Your task to perform on an android device: turn off priority inbox in the gmail app Image 0: 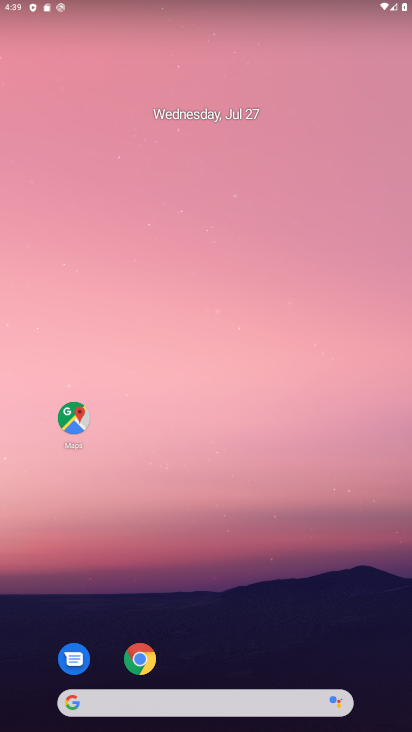
Step 0: drag from (239, 646) to (268, 129)
Your task to perform on an android device: turn off priority inbox in the gmail app Image 1: 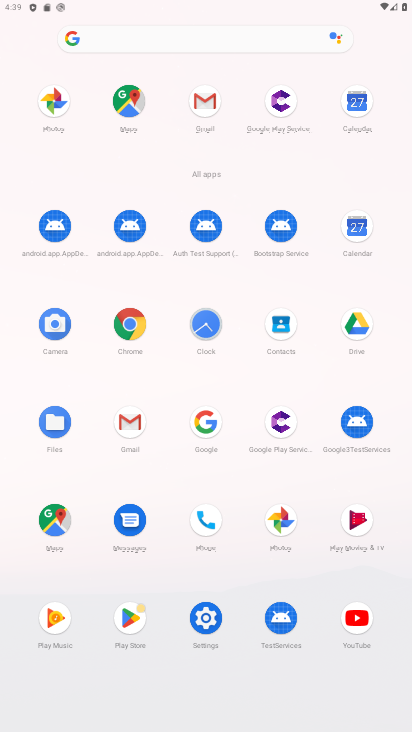
Step 1: click (120, 412)
Your task to perform on an android device: turn off priority inbox in the gmail app Image 2: 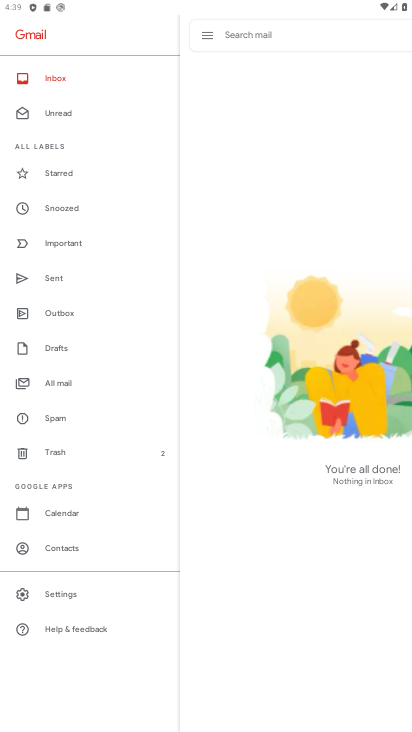
Step 2: click (66, 595)
Your task to perform on an android device: turn off priority inbox in the gmail app Image 3: 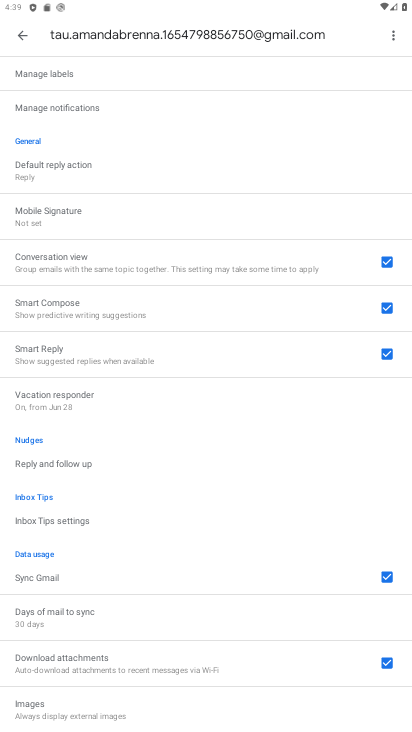
Step 3: click (75, 159)
Your task to perform on an android device: turn off priority inbox in the gmail app Image 4: 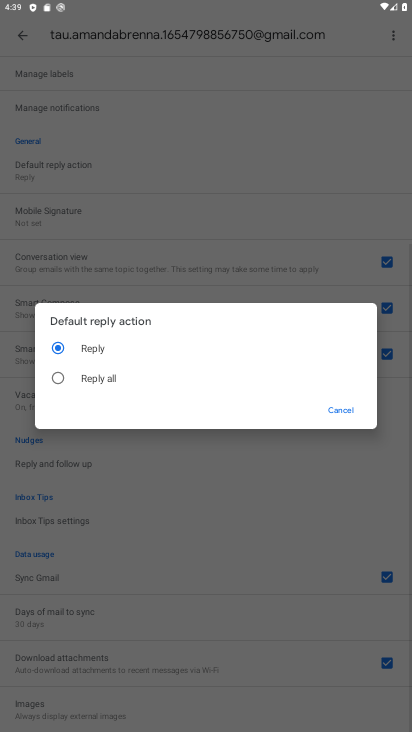
Step 4: click (103, 161)
Your task to perform on an android device: turn off priority inbox in the gmail app Image 5: 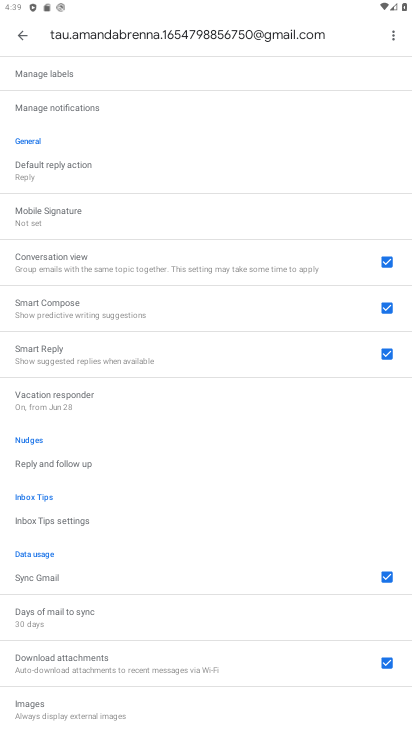
Step 5: drag from (172, 162) to (81, 617)
Your task to perform on an android device: turn off priority inbox in the gmail app Image 6: 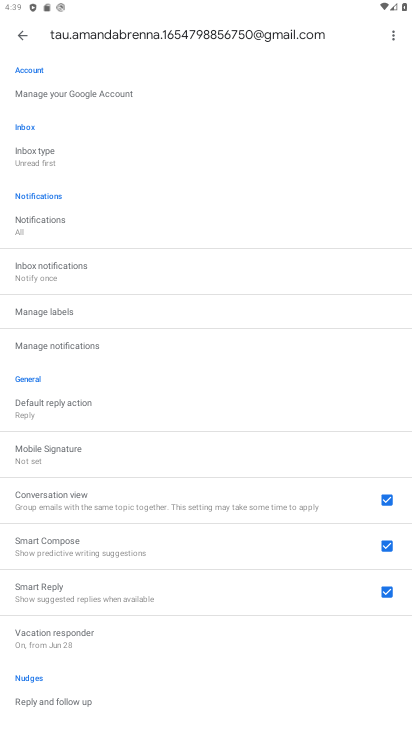
Step 6: click (61, 153)
Your task to perform on an android device: turn off priority inbox in the gmail app Image 7: 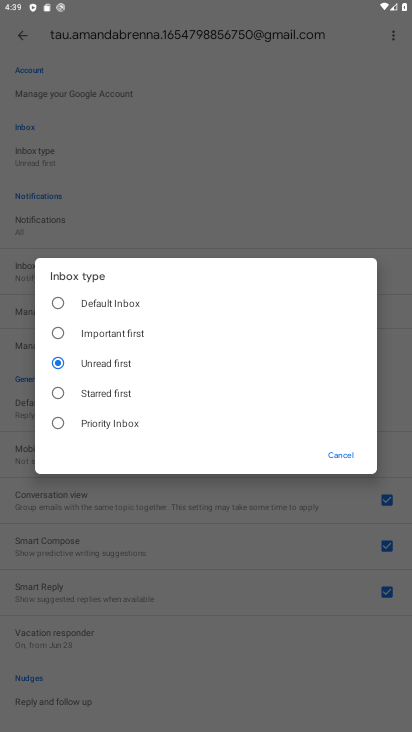
Step 7: click (114, 299)
Your task to perform on an android device: turn off priority inbox in the gmail app Image 8: 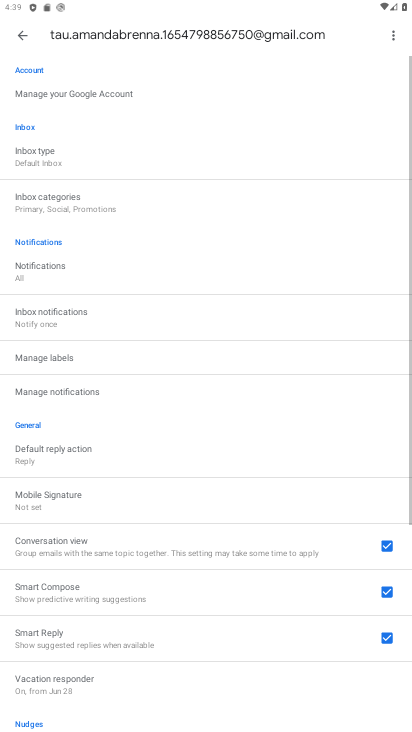
Step 8: task complete